Your task to perform on an android device: toggle translation in the chrome app Image 0: 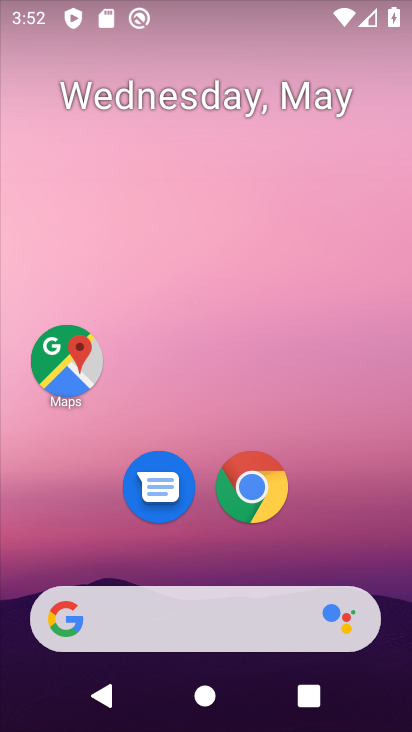
Step 0: drag from (252, 647) to (283, 143)
Your task to perform on an android device: toggle translation in the chrome app Image 1: 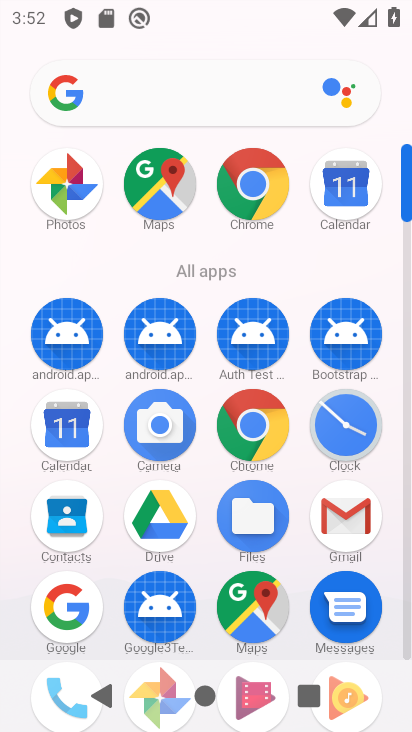
Step 1: click (256, 158)
Your task to perform on an android device: toggle translation in the chrome app Image 2: 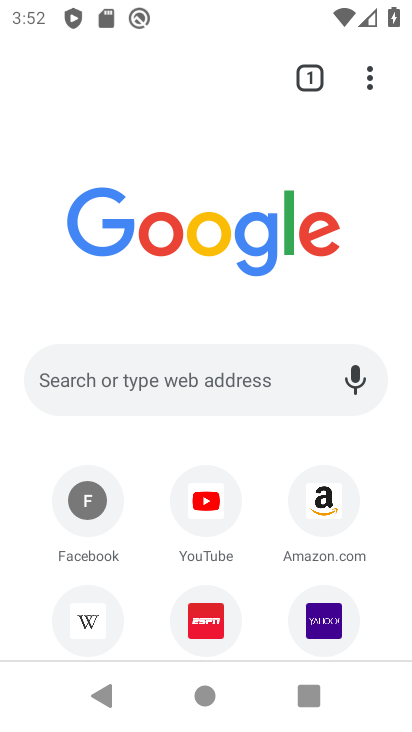
Step 2: click (372, 86)
Your task to perform on an android device: toggle translation in the chrome app Image 3: 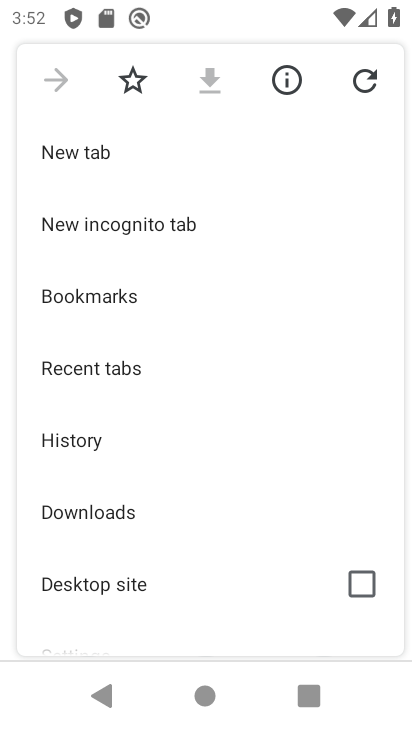
Step 3: drag from (111, 606) to (113, 550)
Your task to perform on an android device: toggle translation in the chrome app Image 4: 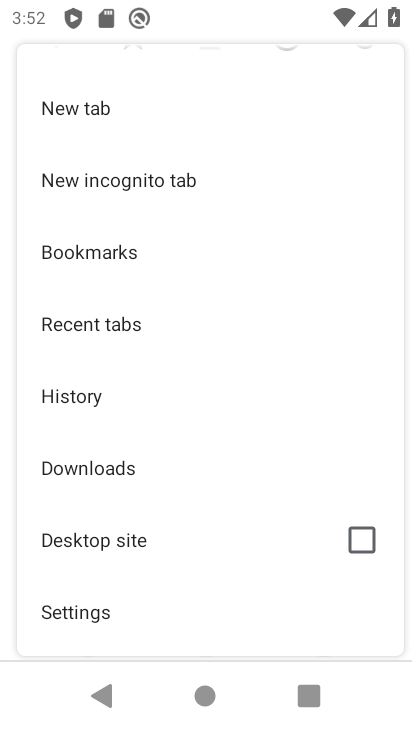
Step 4: click (84, 611)
Your task to perform on an android device: toggle translation in the chrome app Image 5: 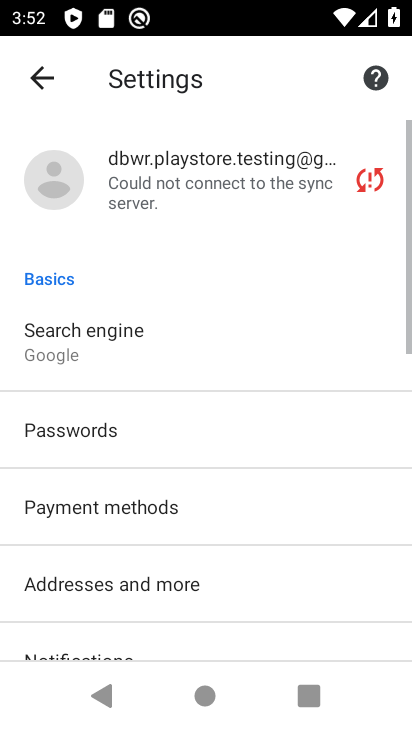
Step 5: drag from (94, 559) to (142, 325)
Your task to perform on an android device: toggle translation in the chrome app Image 6: 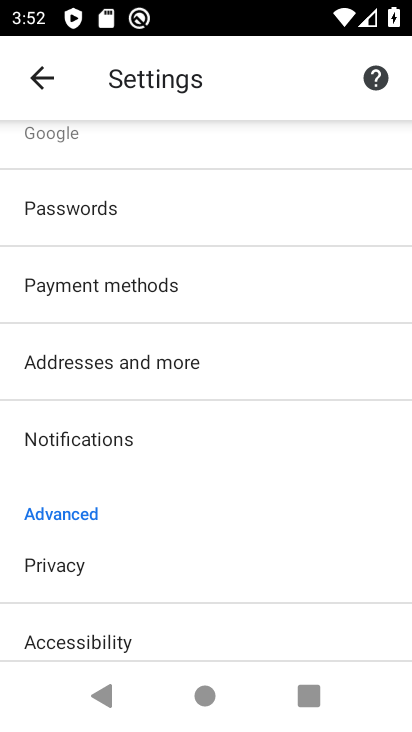
Step 6: drag from (81, 612) to (131, 457)
Your task to perform on an android device: toggle translation in the chrome app Image 7: 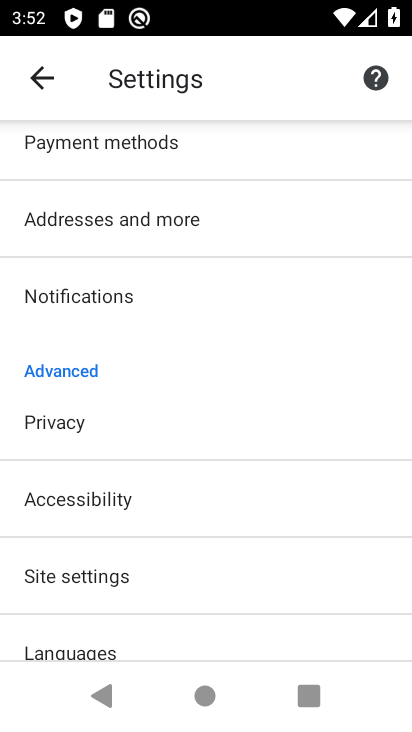
Step 7: click (69, 636)
Your task to perform on an android device: toggle translation in the chrome app Image 8: 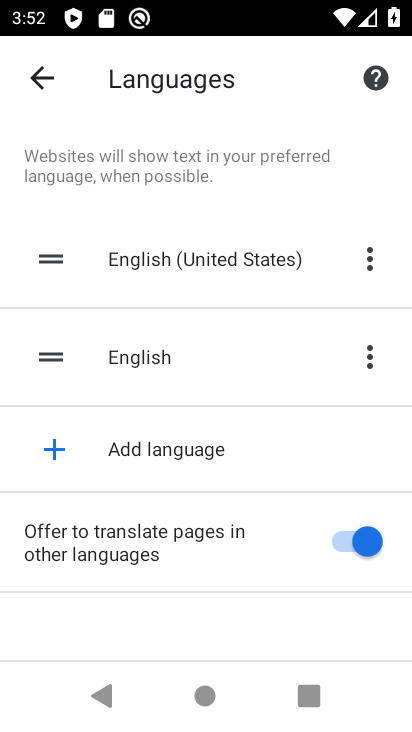
Step 8: click (349, 547)
Your task to perform on an android device: toggle translation in the chrome app Image 9: 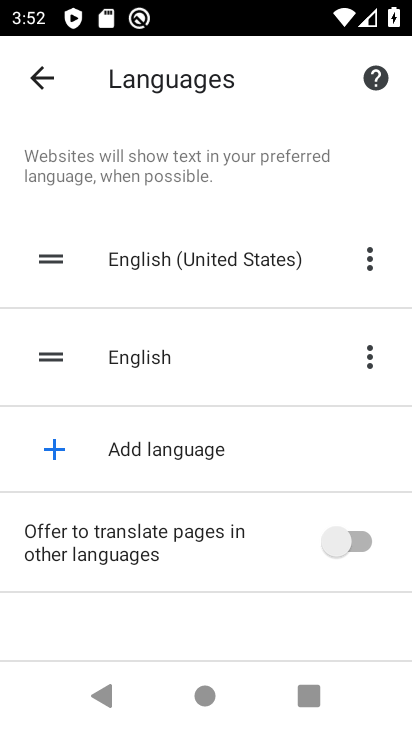
Step 9: click (349, 547)
Your task to perform on an android device: toggle translation in the chrome app Image 10: 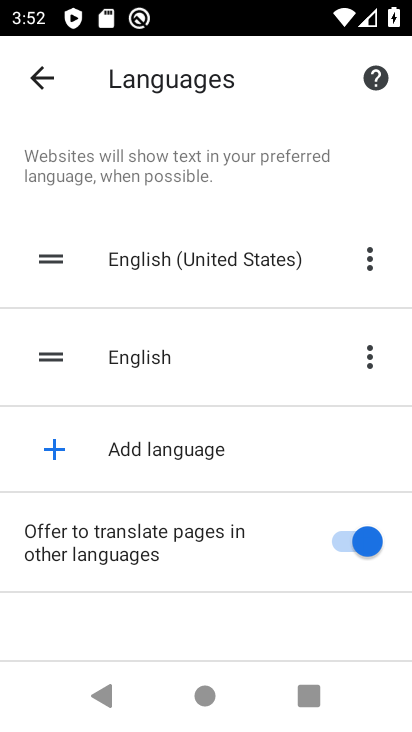
Step 10: task complete